Your task to perform on an android device: What is the news today? Image 0: 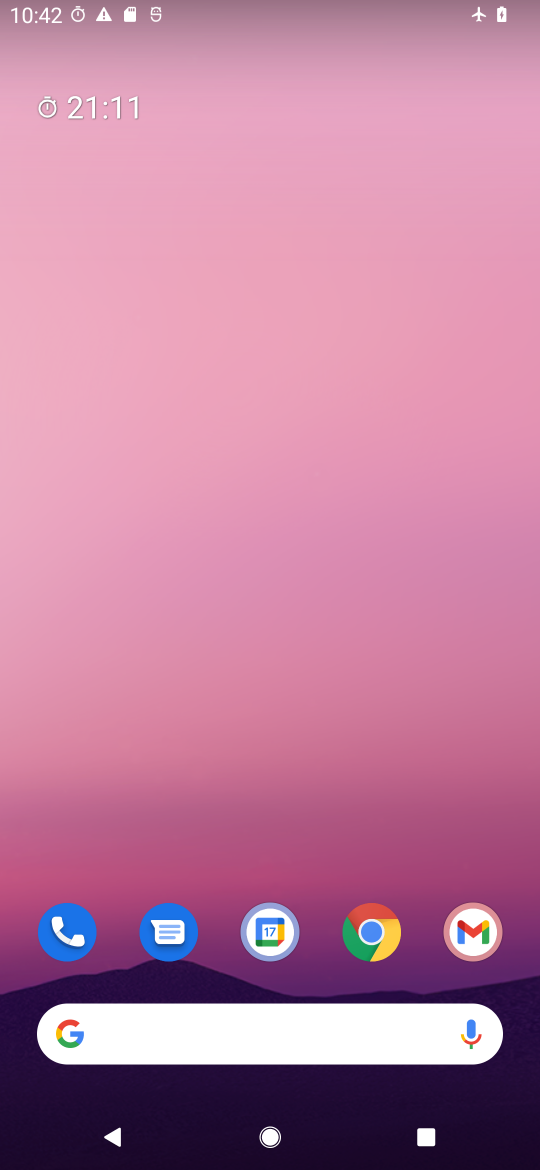
Step 0: drag from (312, 864) to (217, 147)
Your task to perform on an android device: What is the news today? Image 1: 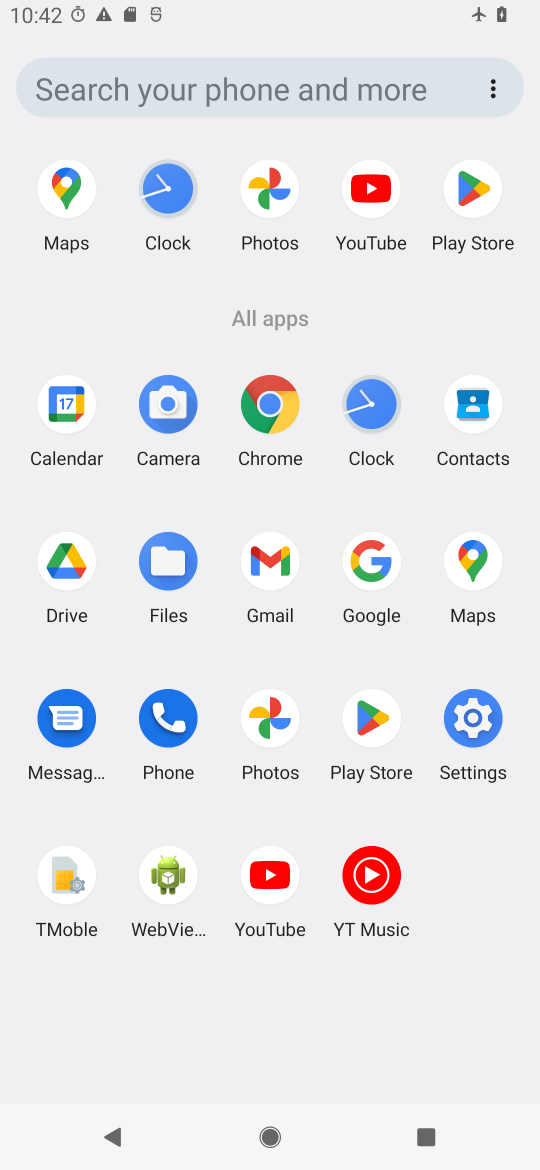
Step 1: click (362, 578)
Your task to perform on an android device: What is the news today? Image 2: 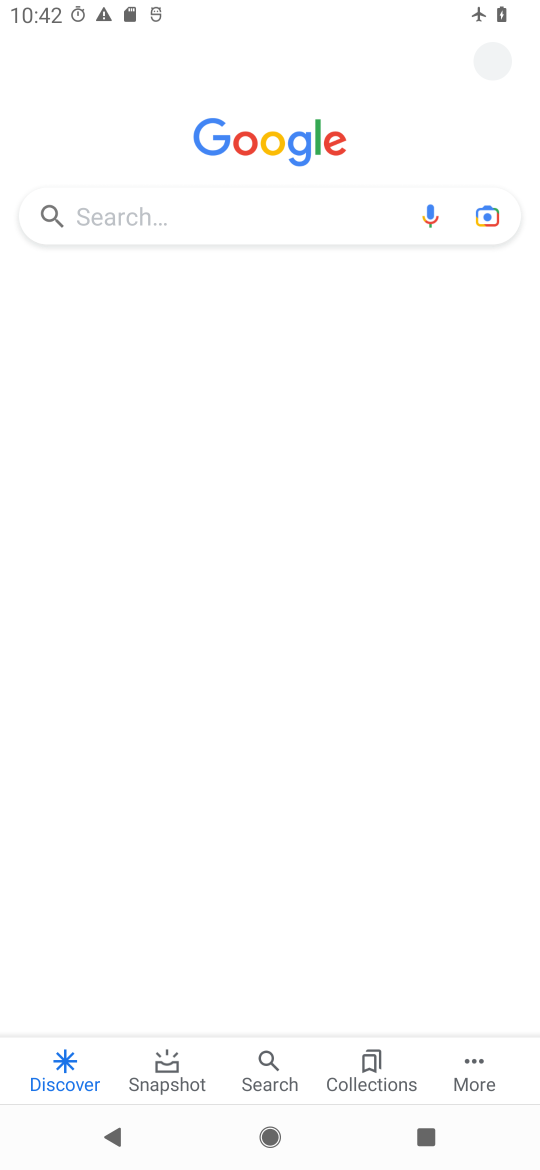
Step 2: click (218, 212)
Your task to perform on an android device: What is the news today? Image 3: 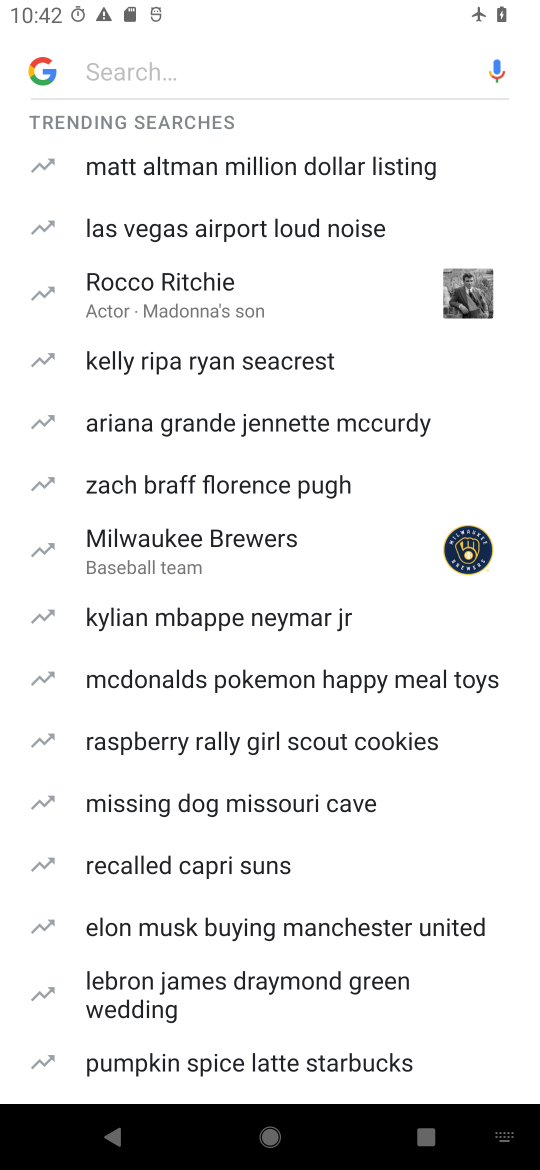
Step 3: type "news"
Your task to perform on an android device: What is the news today? Image 4: 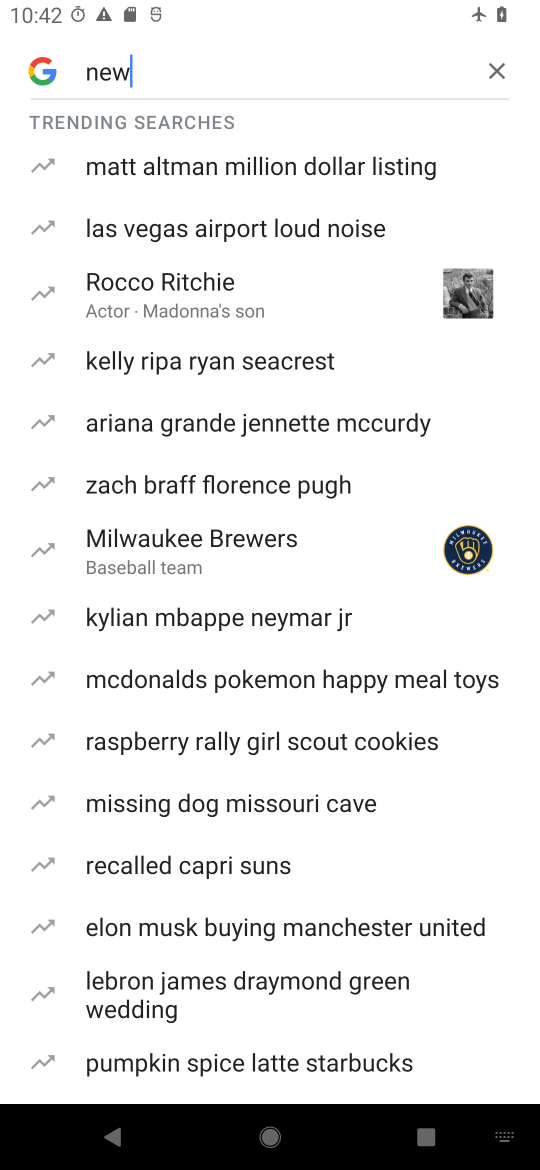
Step 4: type ""
Your task to perform on an android device: What is the news today? Image 5: 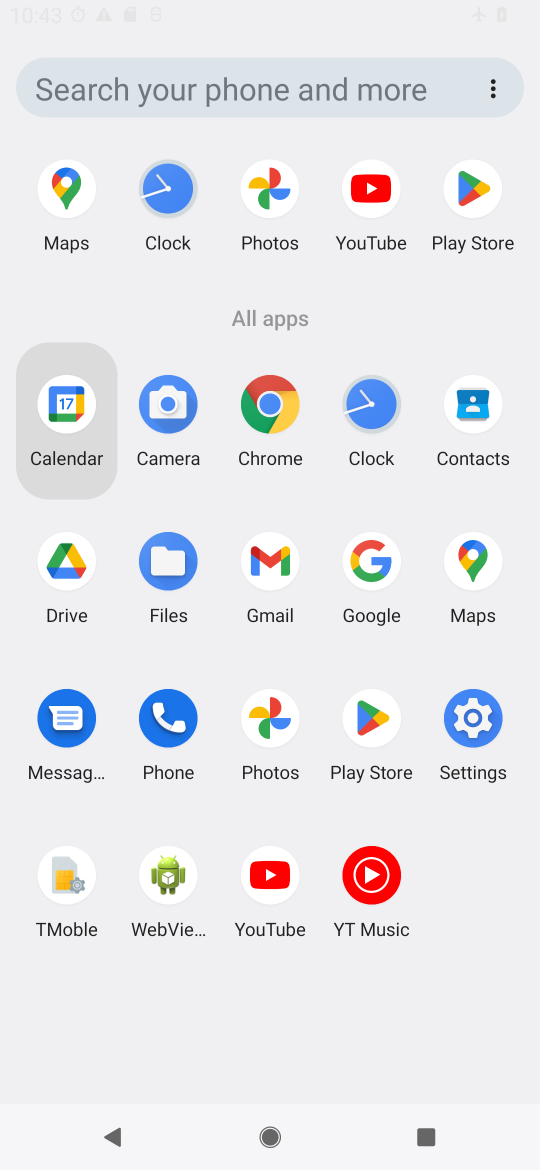
Step 5: click (358, 589)
Your task to perform on an android device: What is the news today? Image 6: 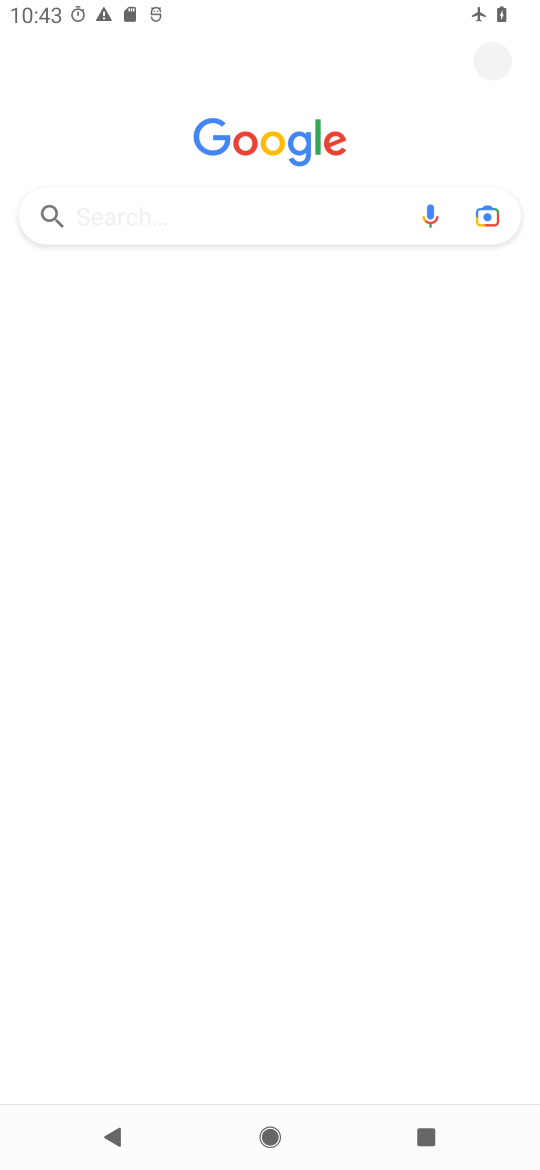
Step 6: click (204, 226)
Your task to perform on an android device: What is the news today? Image 7: 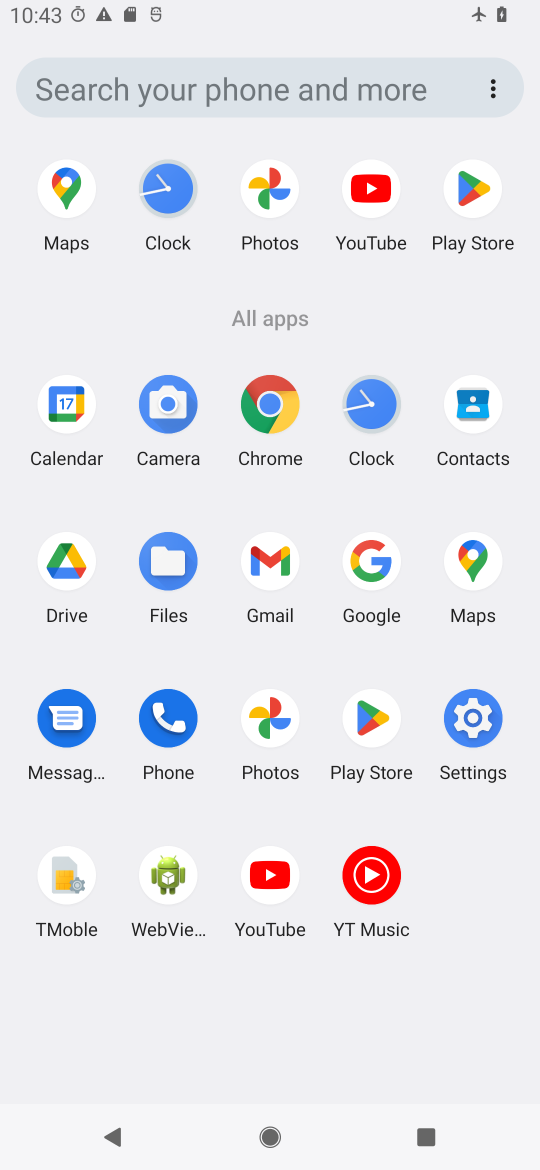
Step 7: type "news today"
Your task to perform on an android device: What is the news today? Image 8: 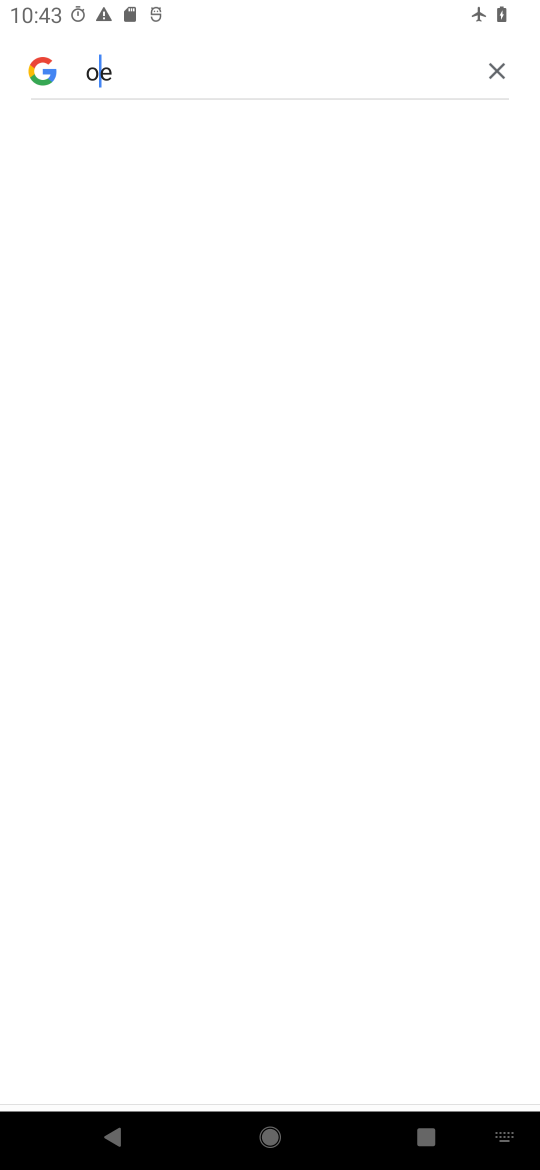
Step 8: task complete